Your task to perform on an android device: find photos in the google photos app Image 0: 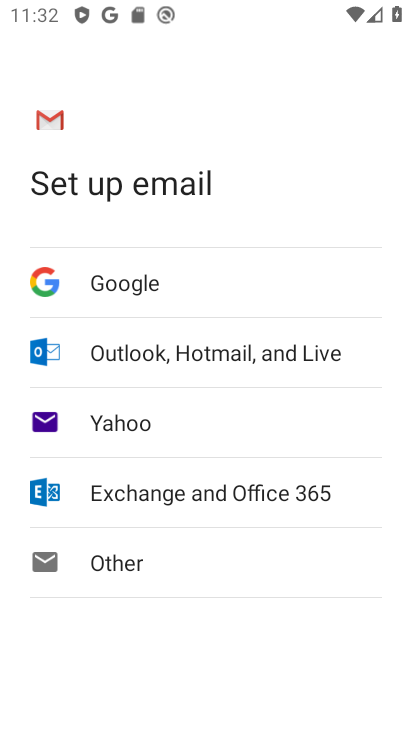
Step 0: press home button
Your task to perform on an android device: find photos in the google photos app Image 1: 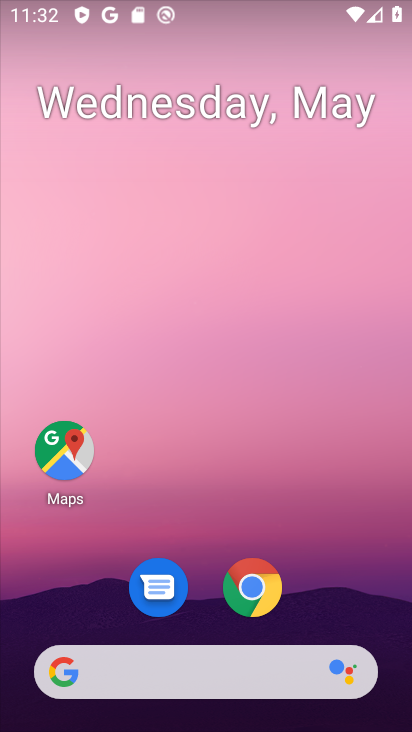
Step 1: drag from (314, 621) to (291, 13)
Your task to perform on an android device: find photos in the google photos app Image 2: 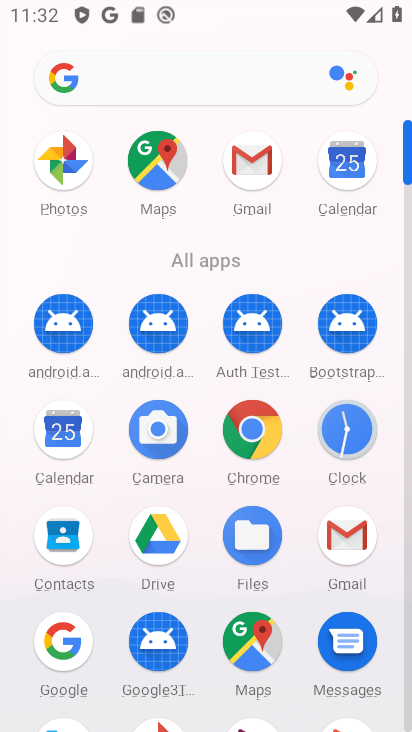
Step 2: drag from (199, 277) to (190, 218)
Your task to perform on an android device: find photos in the google photos app Image 3: 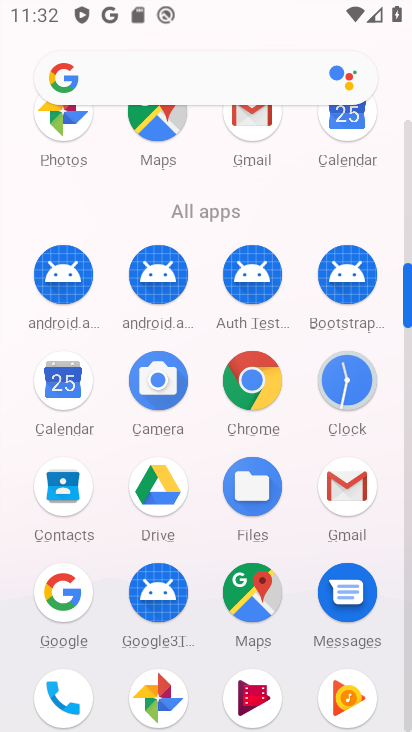
Step 3: click (56, 139)
Your task to perform on an android device: find photos in the google photos app Image 4: 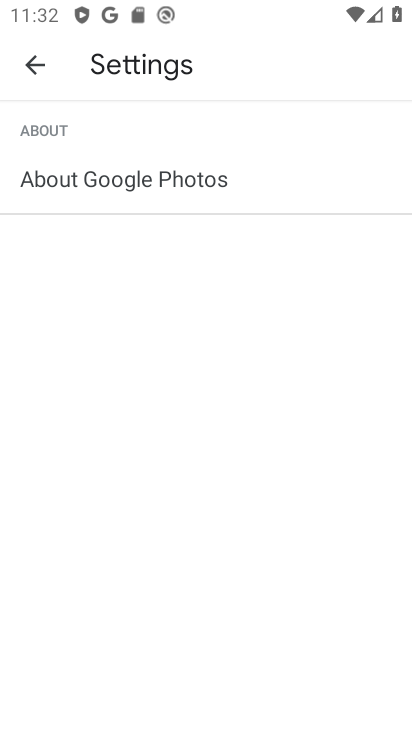
Step 4: click (129, 181)
Your task to perform on an android device: find photos in the google photos app Image 5: 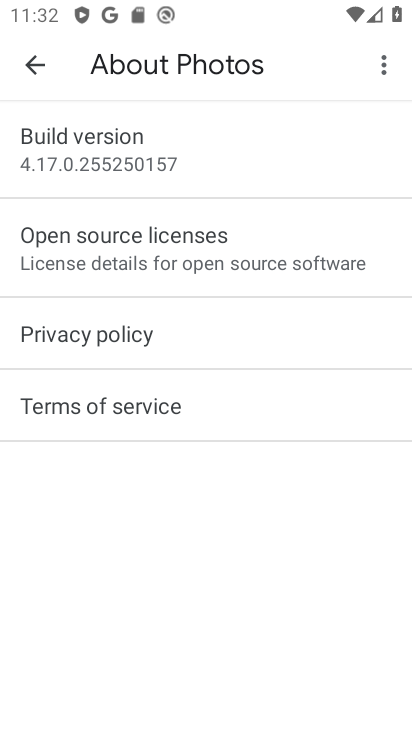
Step 5: click (39, 63)
Your task to perform on an android device: find photos in the google photos app Image 6: 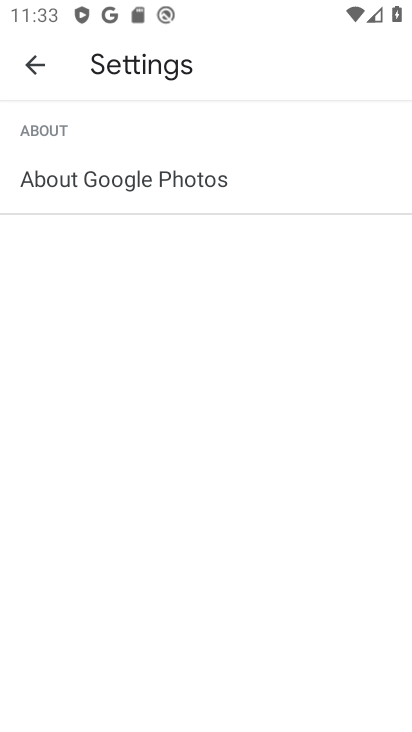
Step 6: click (38, 63)
Your task to perform on an android device: find photos in the google photos app Image 7: 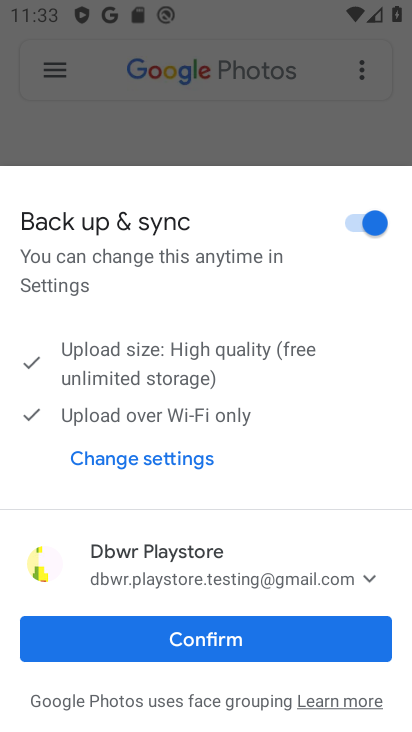
Step 7: click (212, 642)
Your task to perform on an android device: find photos in the google photos app Image 8: 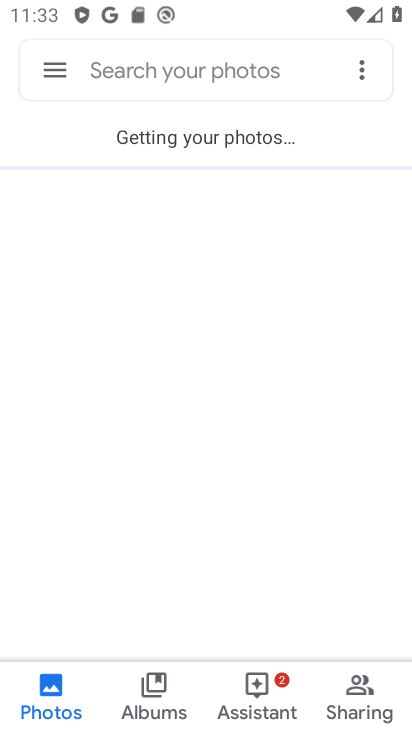
Step 8: task complete